Your task to perform on an android device: What's the weather today? Image 0: 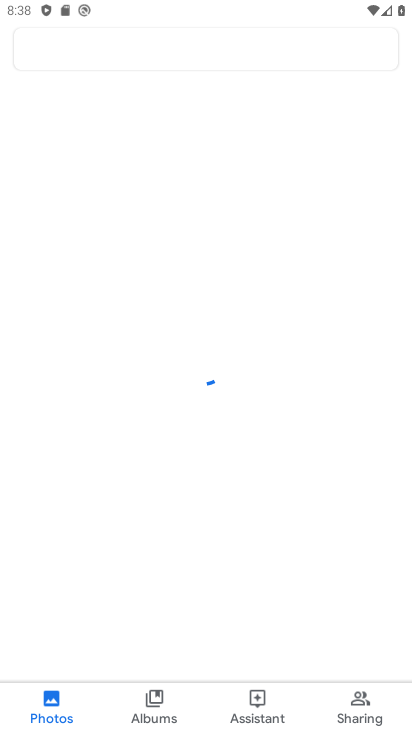
Step 0: press home button
Your task to perform on an android device: What's the weather today? Image 1: 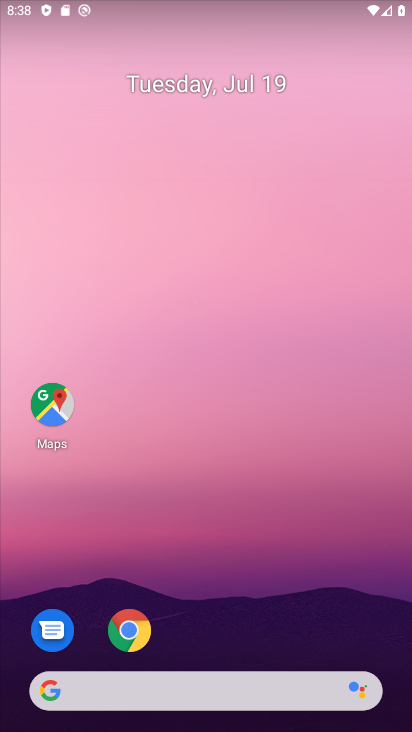
Step 1: click (138, 627)
Your task to perform on an android device: What's the weather today? Image 2: 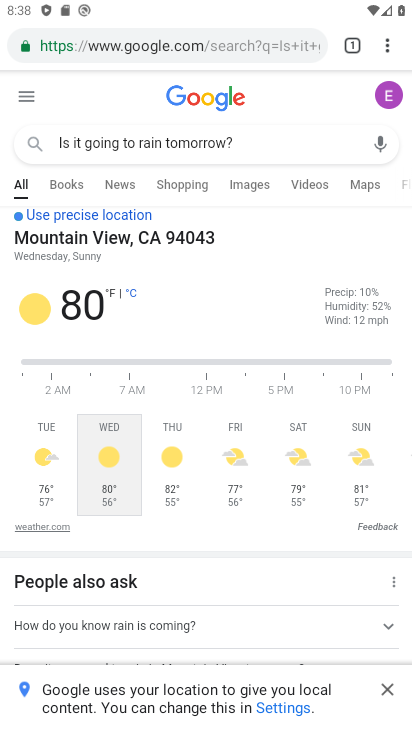
Step 2: click (315, 146)
Your task to perform on an android device: What's the weather today? Image 3: 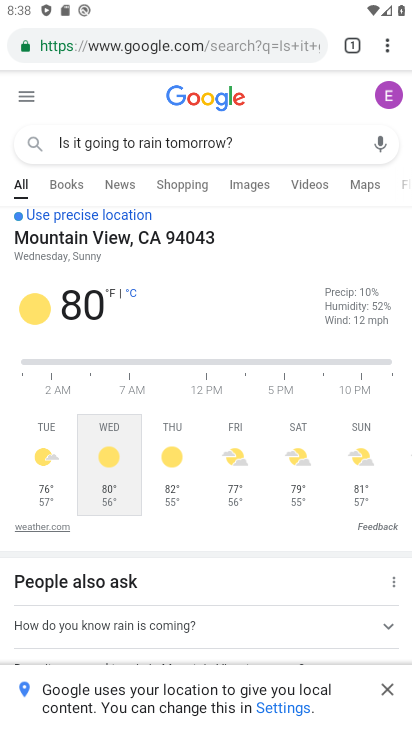
Step 3: click (315, 146)
Your task to perform on an android device: What's the weather today? Image 4: 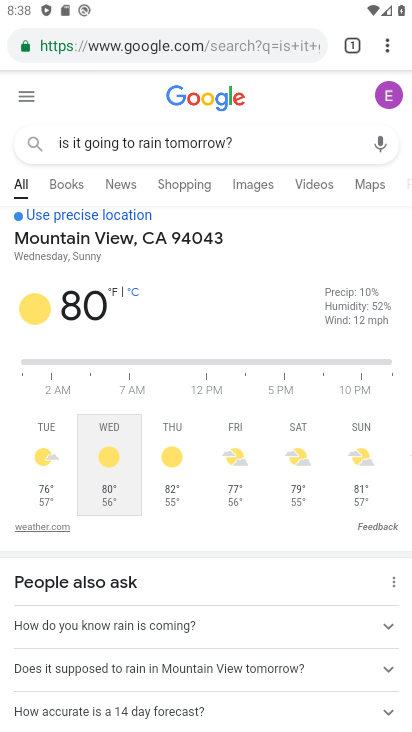
Step 4: click (277, 54)
Your task to perform on an android device: What's the weather today? Image 5: 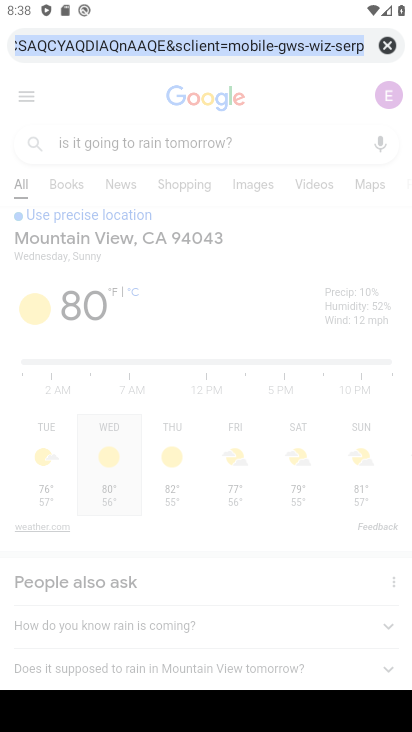
Step 5: type "What's the weather today?"
Your task to perform on an android device: What's the weather today? Image 6: 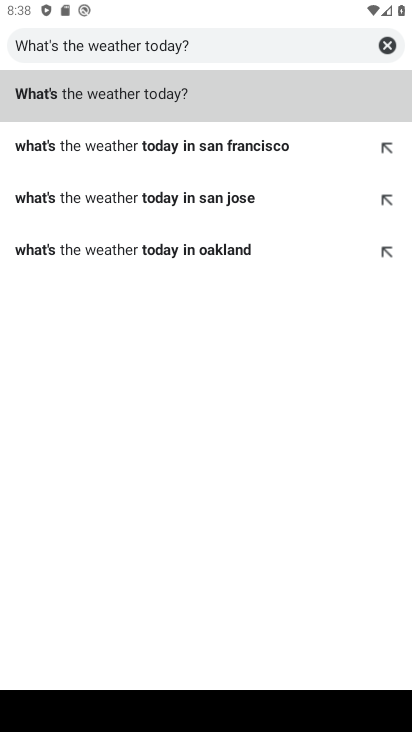
Step 6: click (185, 109)
Your task to perform on an android device: What's the weather today? Image 7: 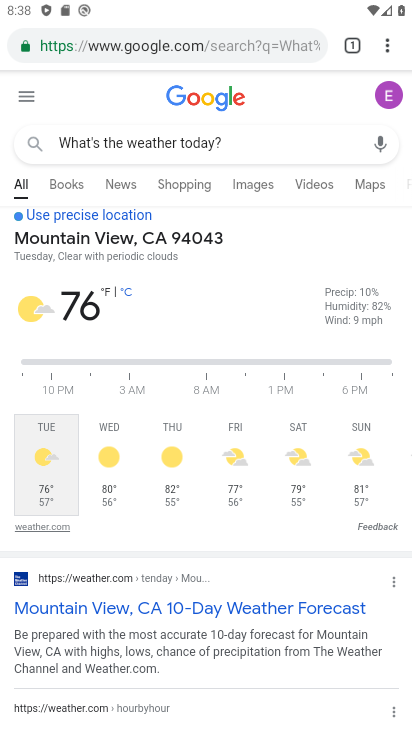
Step 7: task complete